Your task to perform on an android device: open chrome and create a bookmark for the current page Image 0: 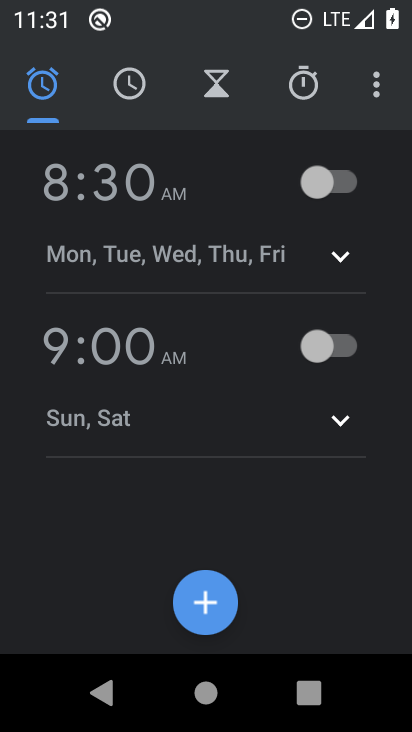
Step 0: press home button
Your task to perform on an android device: open chrome and create a bookmark for the current page Image 1: 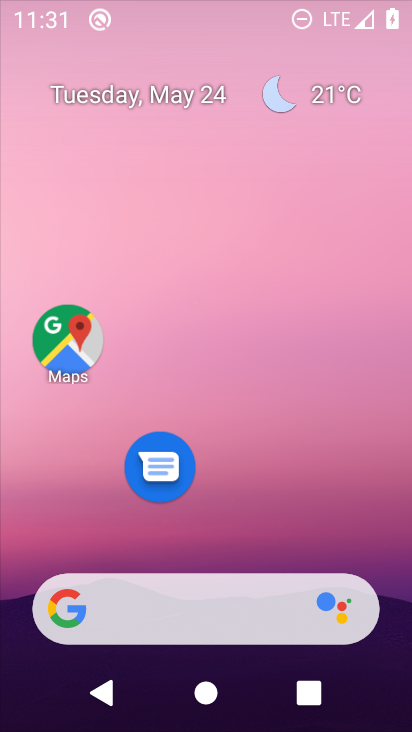
Step 1: drag from (140, 607) to (113, 25)
Your task to perform on an android device: open chrome and create a bookmark for the current page Image 2: 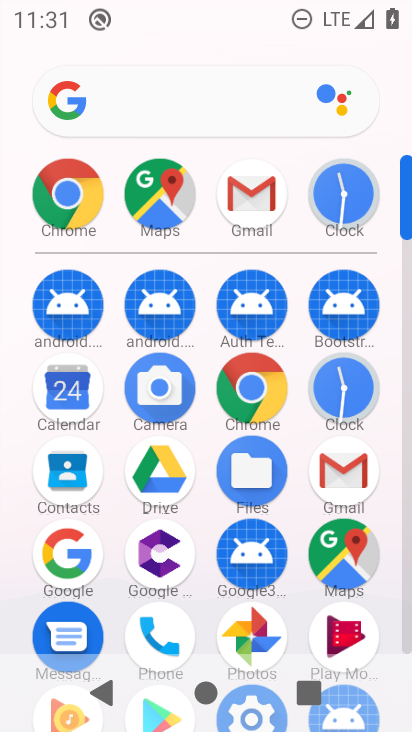
Step 2: click (249, 381)
Your task to perform on an android device: open chrome and create a bookmark for the current page Image 3: 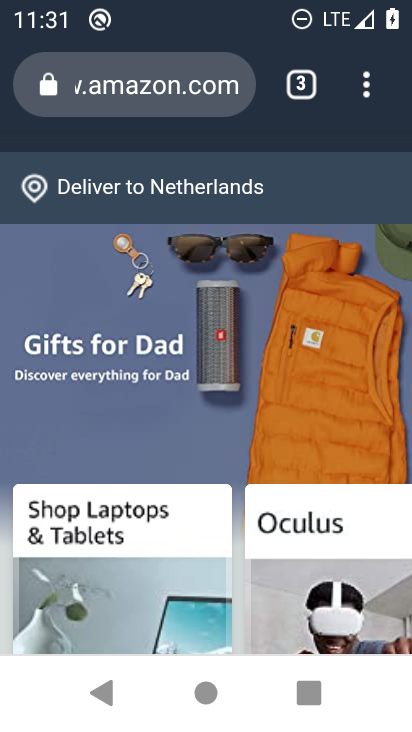
Step 3: click (367, 99)
Your task to perform on an android device: open chrome and create a bookmark for the current page Image 4: 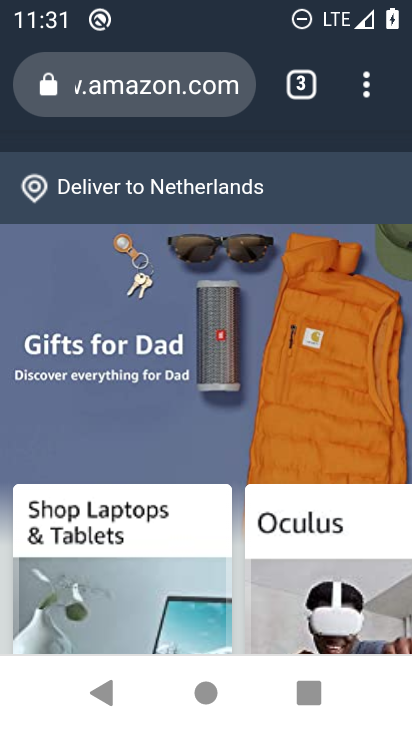
Step 4: task complete